Your task to perform on an android device: Open Chrome and go to the settings page Image 0: 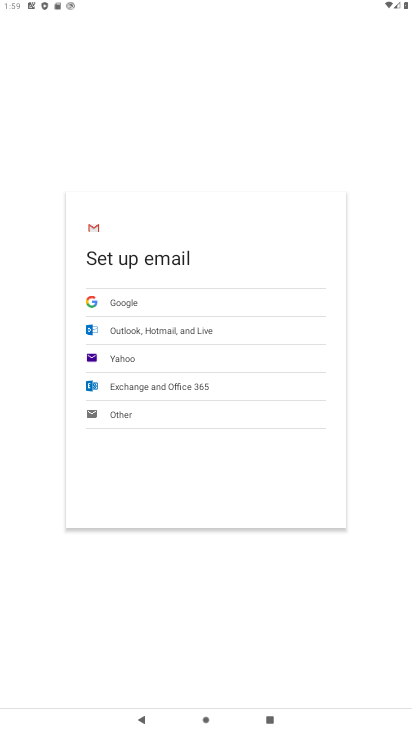
Step 0: press home button
Your task to perform on an android device: Open Chrome and go to the settings page Image 1: 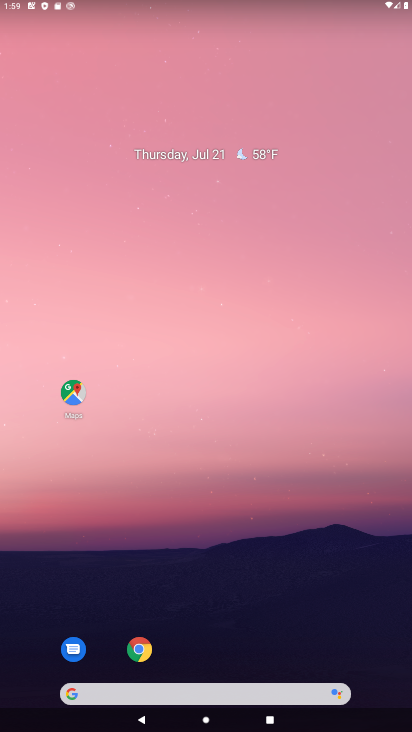
Step 1: drag from (278, 652) to (289, 282)
Your task to perform on an android device: Open Chrome and go to the settings page Image 2: 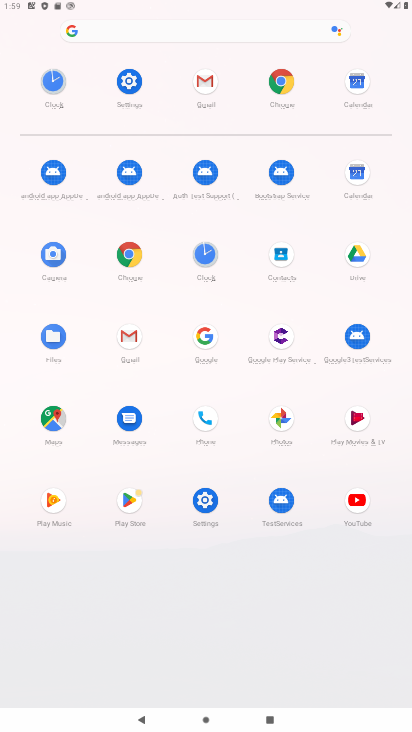
Step 2: click (343, 165)
Your task to perform on an android device: Open Chrome and go to the settings page Image 3: 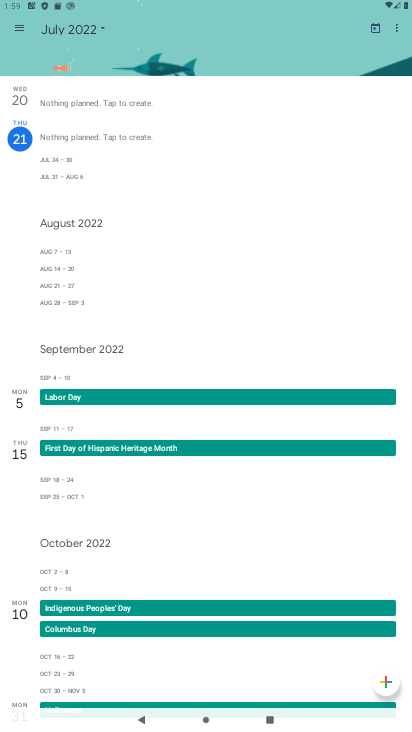
Step 3: task complete